Your task to perform on an android device: install app "Indeed Job Search" Image 0: 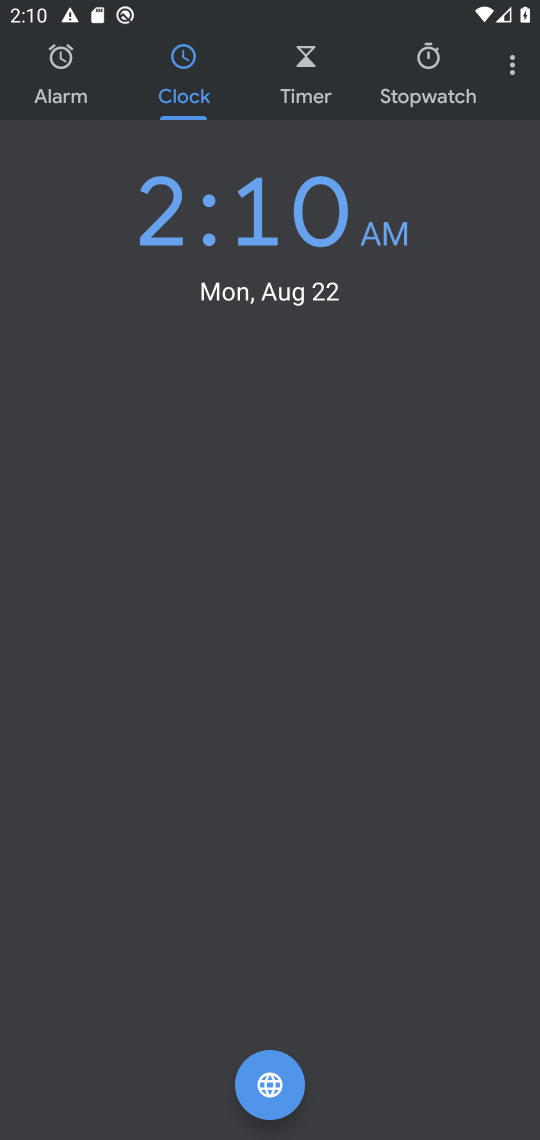
Step 0: press home button
Your task to perform on an android device: install app "Indeed Job Search" Image 1: 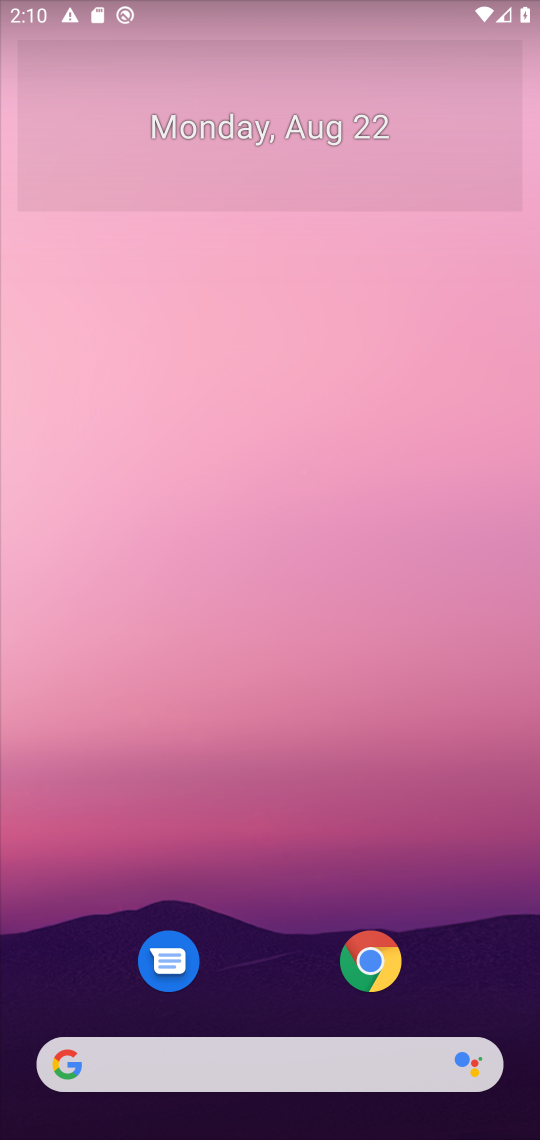
Step 1: drag from (449, 987) to (481, 128)
Your task to perform on an android device: install app "Indeed Job Search" Image 2: 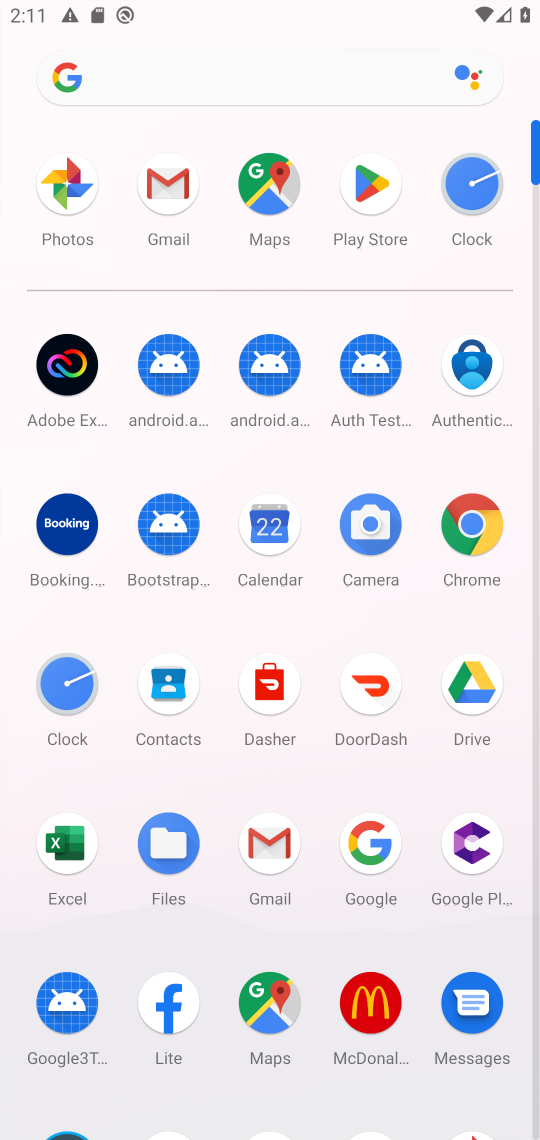
Step 2: click (372, 190)
Your task to perform on an android device: install app "Indeed Job Search" Image 3: 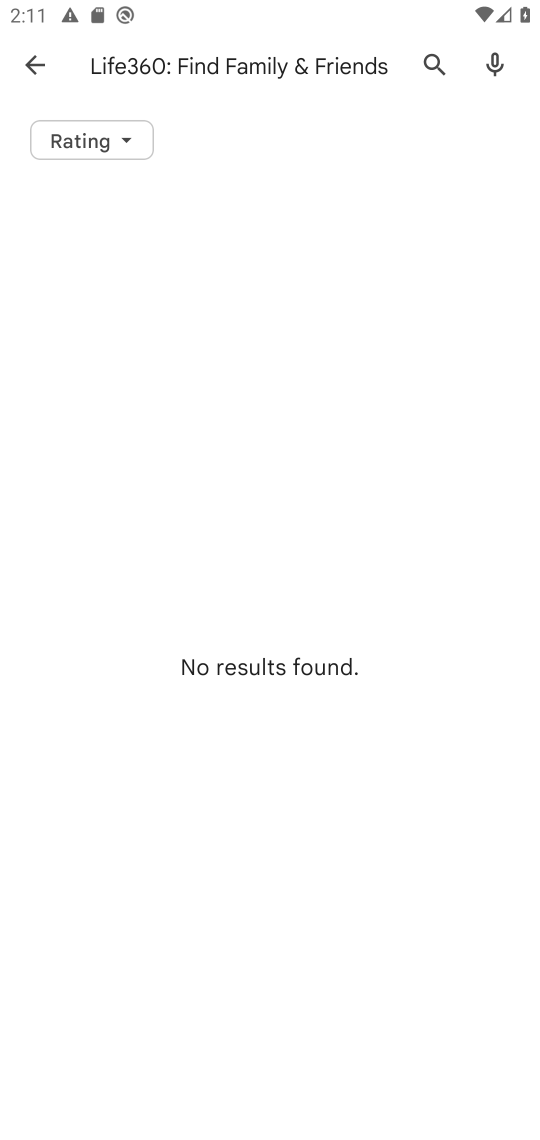
Step 3: press back button
Your task to perform on an android device: install app "Indeed Job Search" Image 4: 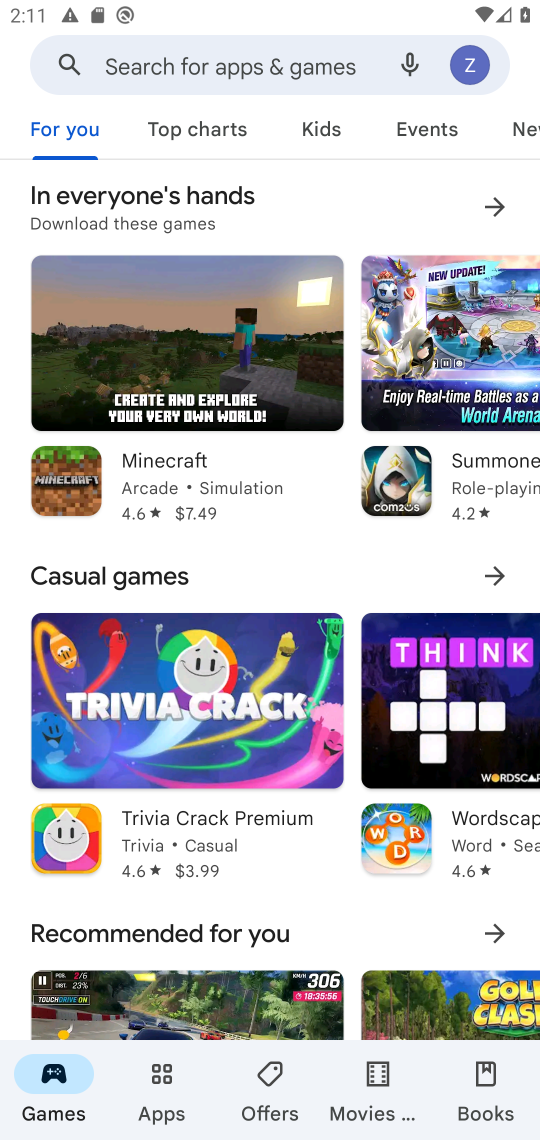
Step 4: click (316, 49)
Your task to perform on an android device: install app "Indeed Job Search" Image 5: 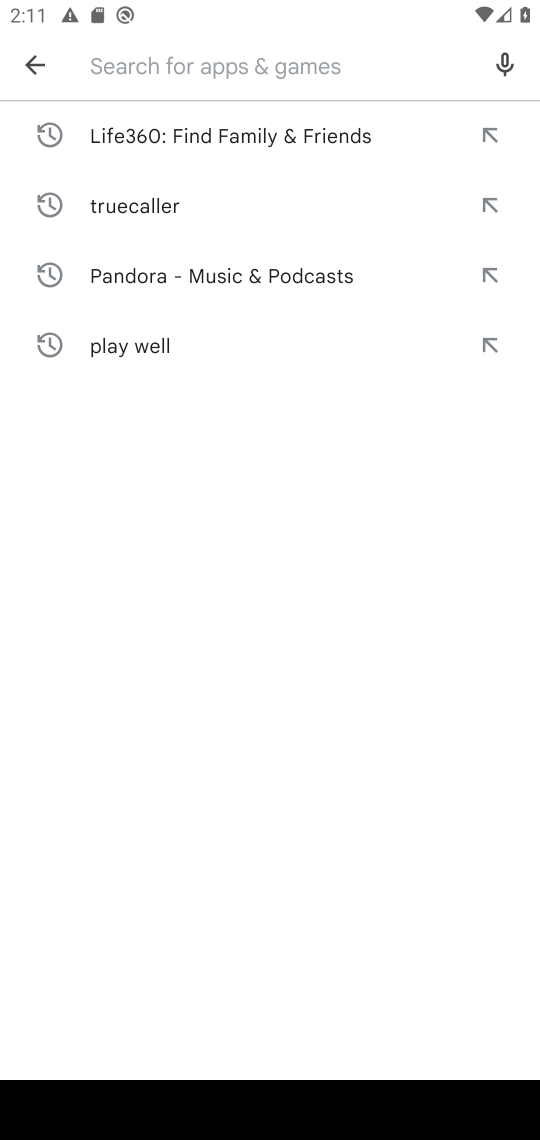
Step 5: type "Indeed Job Search"
Your task to perform on an android device: install app "Indeed Job Search" Image 6: 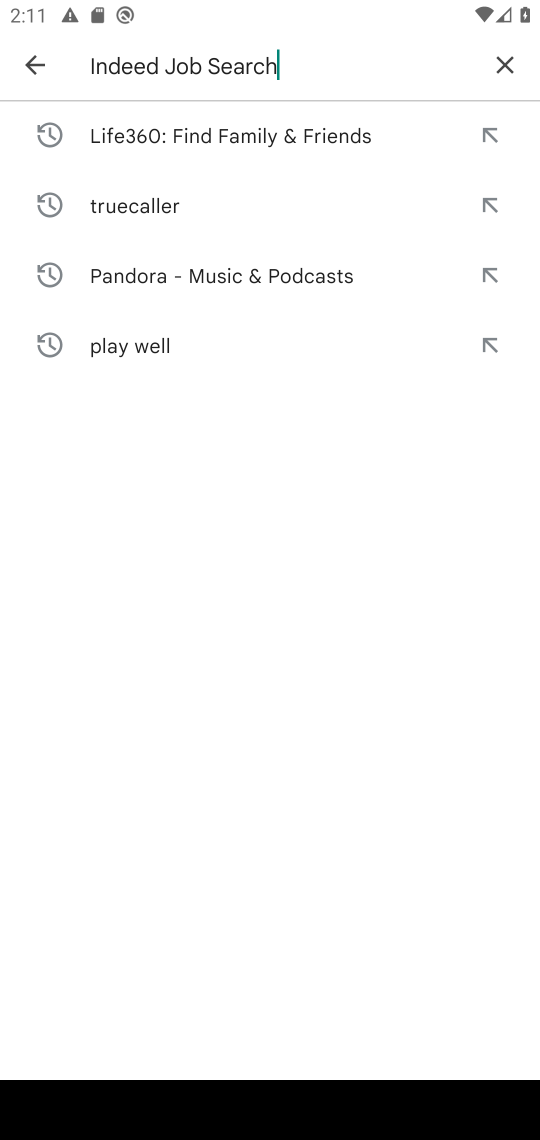
Step 6: press enter
Your task to perform on an android device: install app "Indeed Job Search" Image 7: 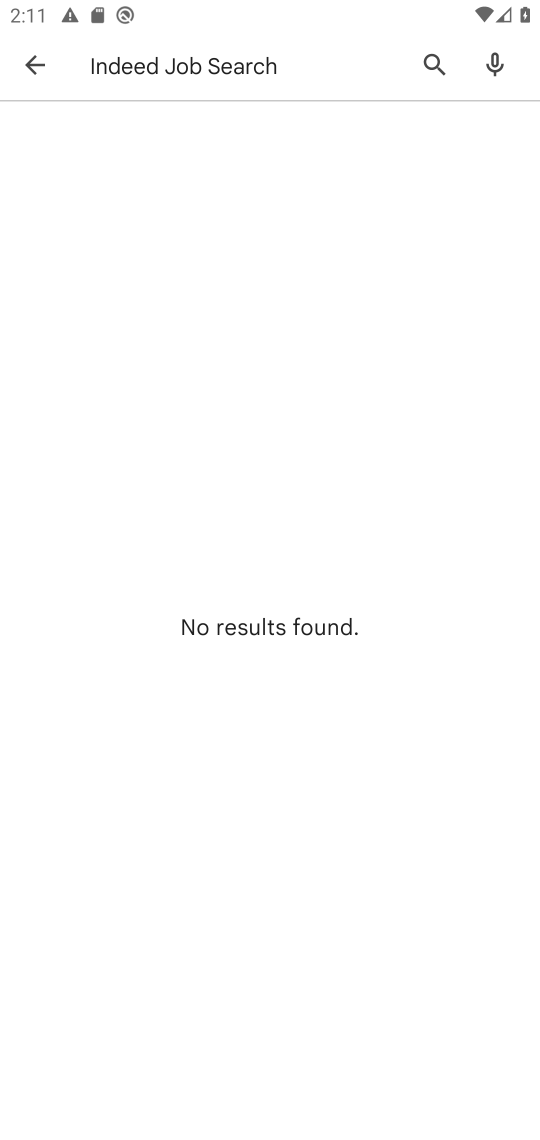
Step 7: task complete